Your task to perform on an android device: Go to CNN.com Image 0: 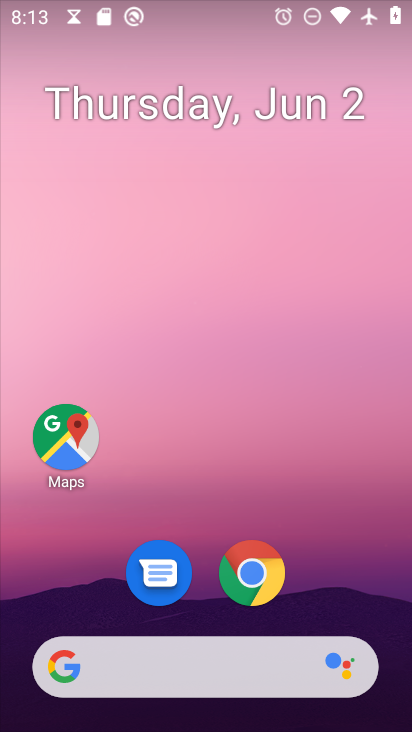
Step 0: press home button
Your task to perform on an android device: Go to CNN.com Image 1: 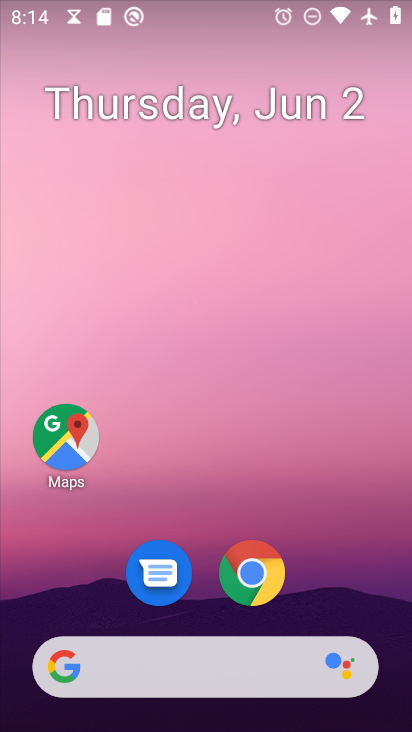
Step 1: click (257, 582)
Your task to perform on an android device: Go to CNN.com Image 2: 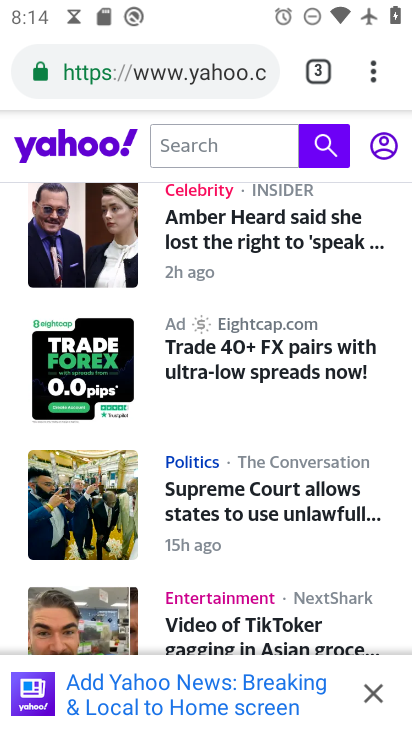
Step 2: drag from (379, 75) to (182, 141)
Your task to perform on an android device: Go to CNN.com Image 3: 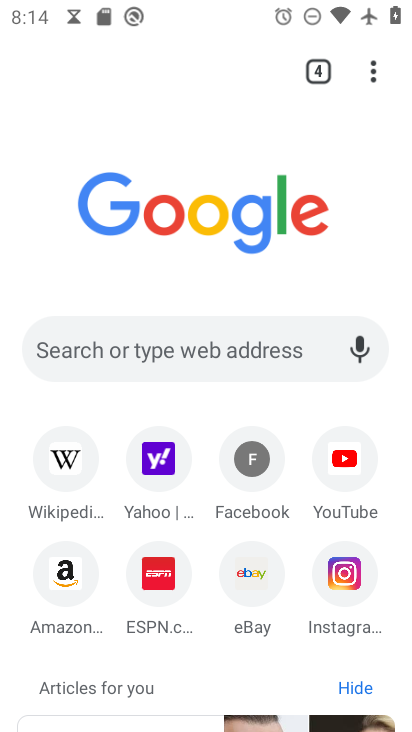
Step 3: click (164, 357)
Your task to perform on an android device: Go to CNN.com Image 4: 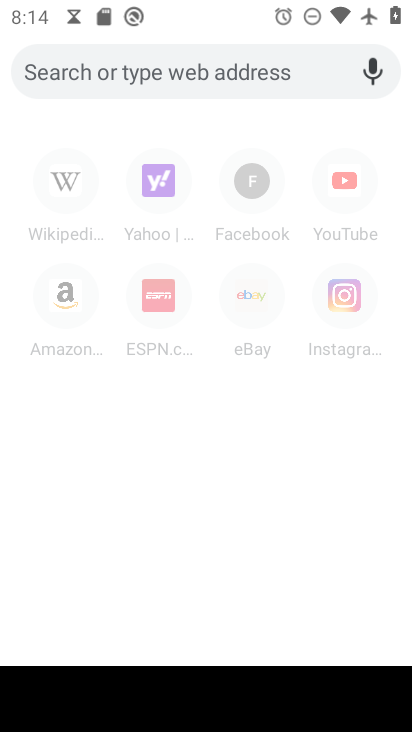
Step 4: type "cnn.com"
Your task to perform on an android device: Go to CNN.com Image 5: 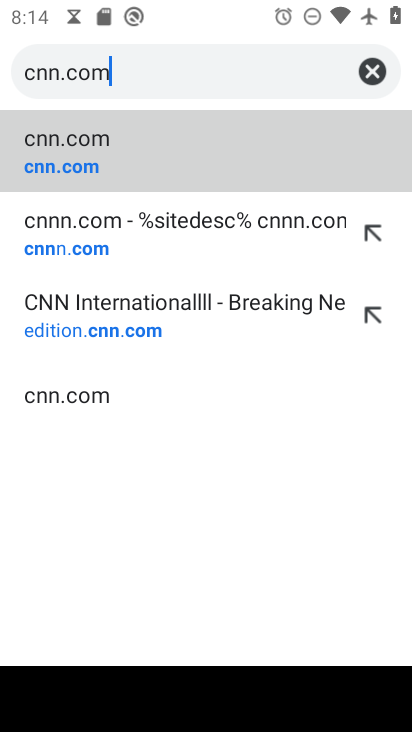
Step 5: click (88, 148)
Your task to perform on an android device: Go to CNN.com Image 6: 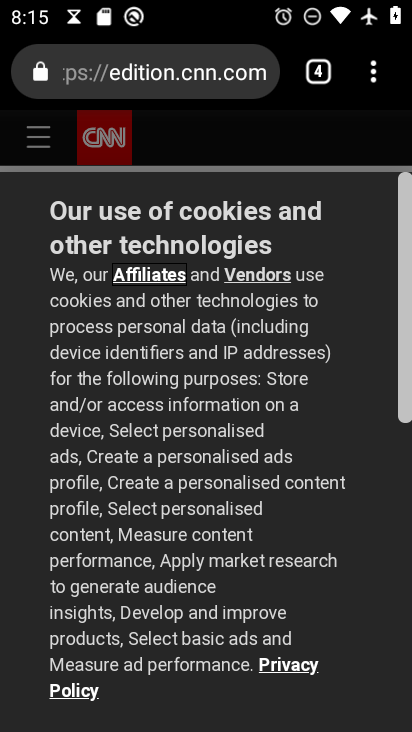
Step 6: drag from (188, 629) to (304, 280)
Your task to perform on an android device: Go to CNN.com Image 7: 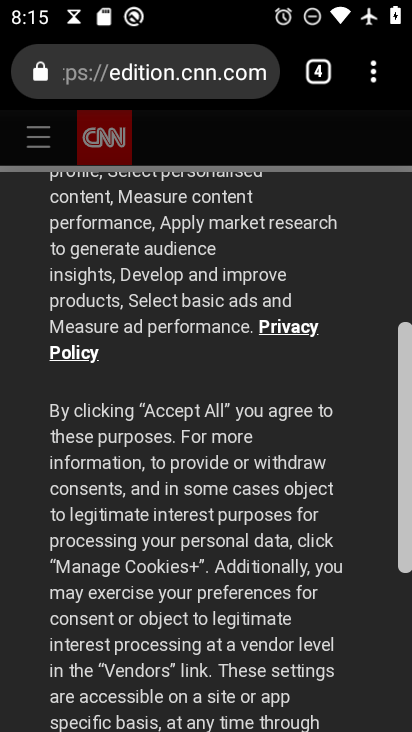
Step 7: drag from (241, 544) to (366, 163)
Your task to perform on an android device: Go to CNN.com Image 8: 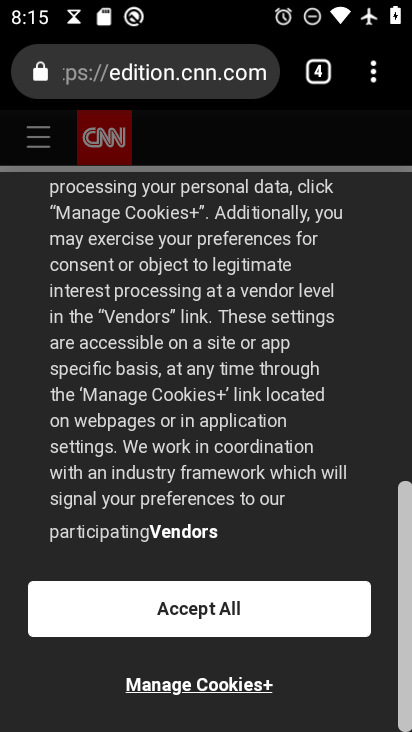
Step 8: click (181, 613)
Your task to perform on an android device: Go to CNN.com Image 9: 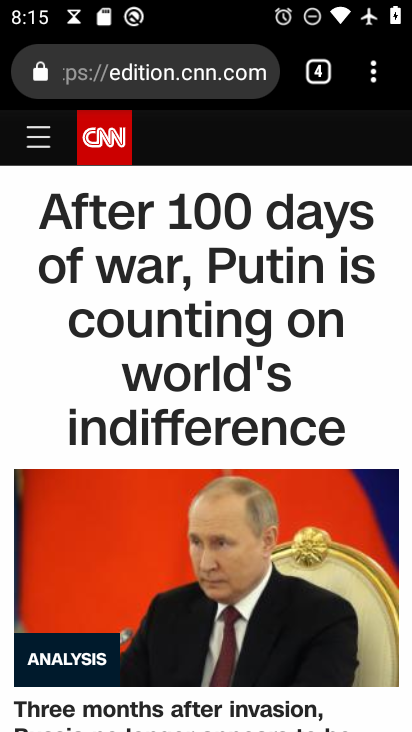
Step 9: task complete